Your task to perform on an android device: see creations saved in the google photos Image 0: 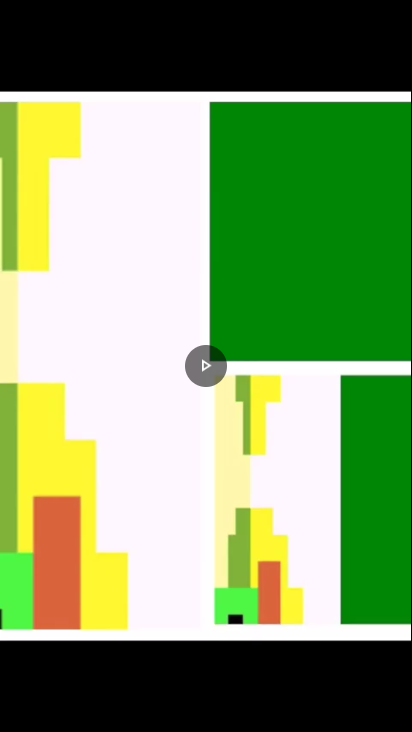
Step 0: press home button
Your task to perform on an android device: see creations saved in the google photos Image 1: 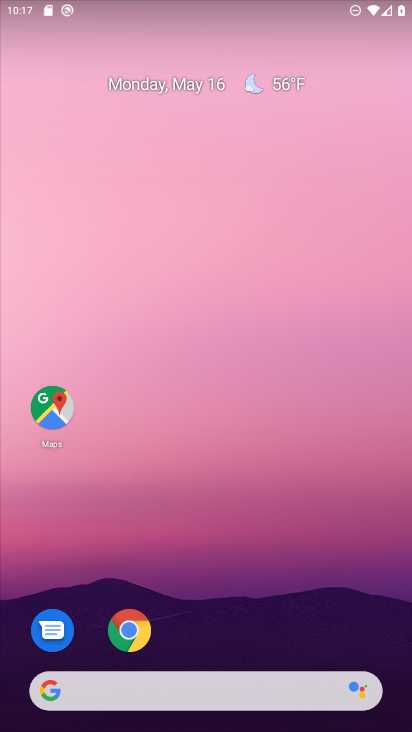
Step 1: drag from (210, 649) to (247, 79)
Your task to perform on an android device: see creations saved in the google photos Image 2: 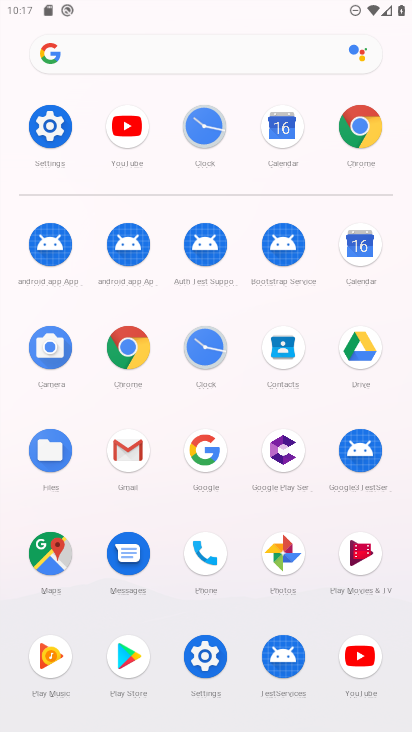
Step 2: click (282, 562)
Your task to perform on an android device: see creations saved in the google photos Image 3: 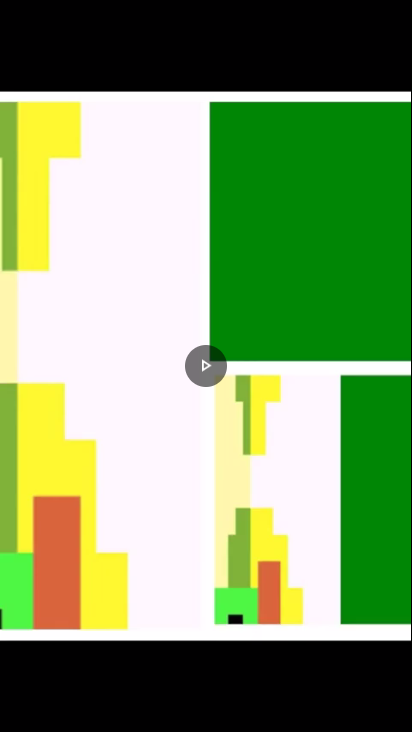
Step 3: press back button
Your task to perform on an android device: see creations saved in the google photos Image 4: 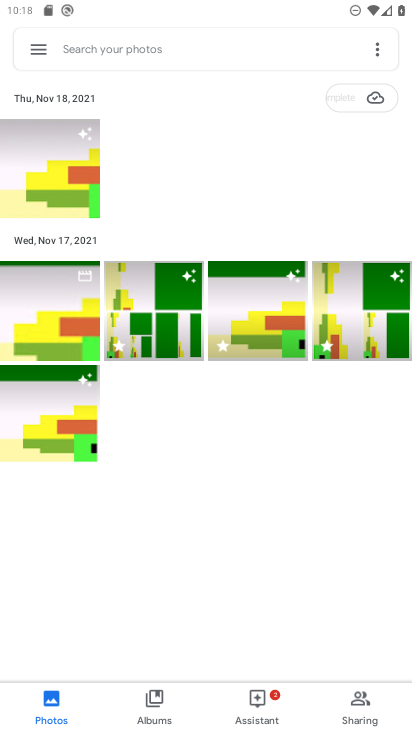
Step 4: click (175, 52)
Your task to perform on an android device: see creations saved in the google photos Image 5: 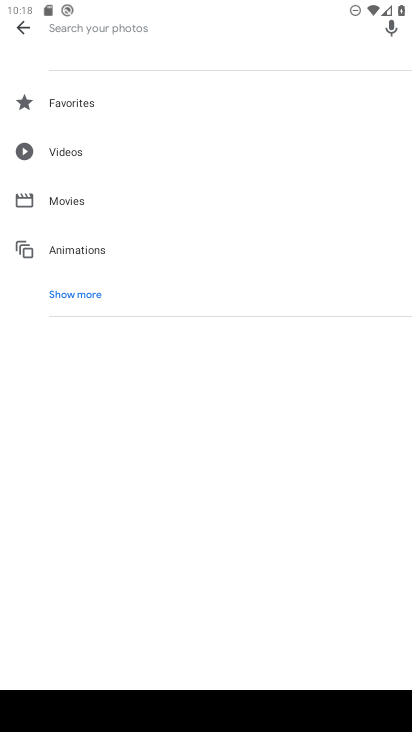
Step 5: type "creations"
Your task to perform on an android device: see creations saved in the google photos Image 6: 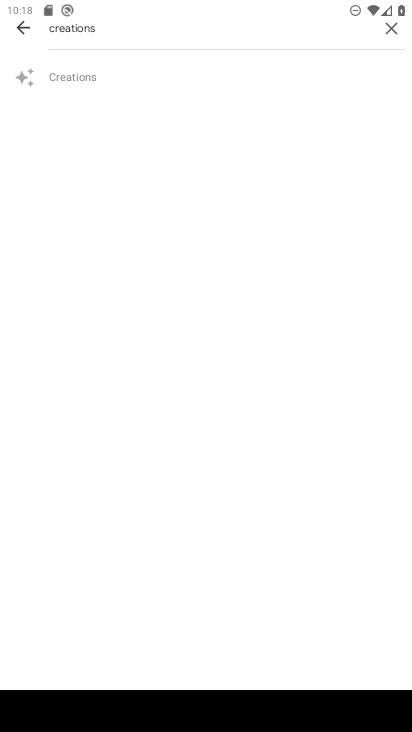
Step 6: click (108, 84)
Your task to perform on an android device: see creations saved in the google photos Image 7: 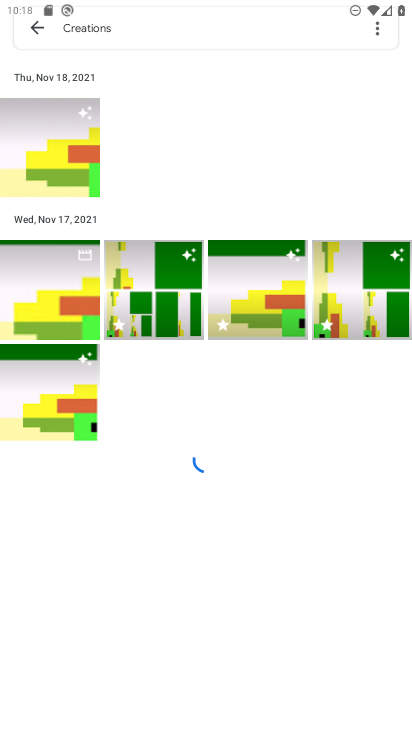
Step 7: click (65, 165)
Your task to perform on an android device: see creations saved in the google photos Image 8: 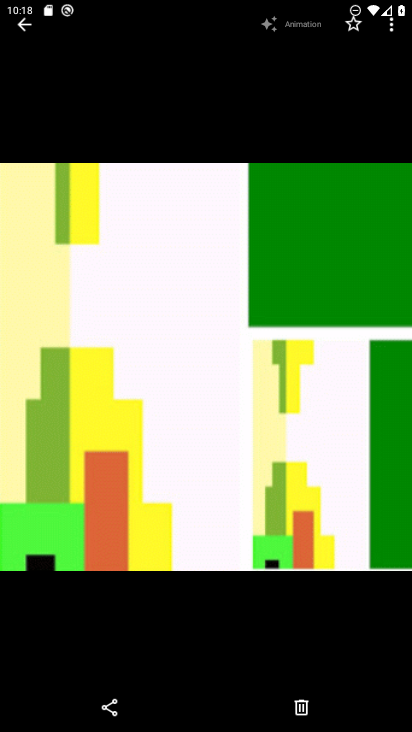
Step 8: task complete